Your task to perform on an android device: Go to CNN.com Image 0: 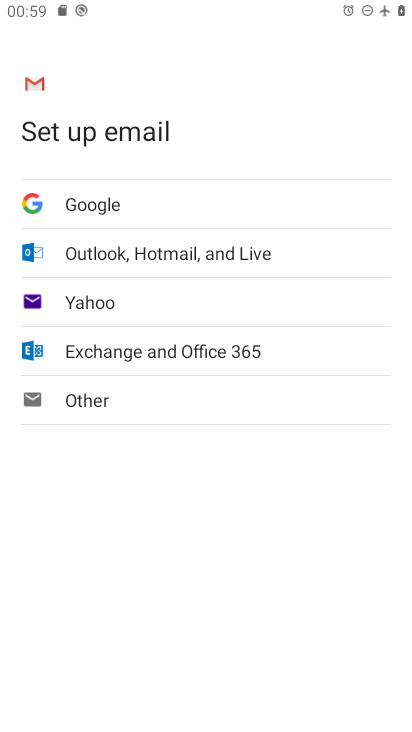
Step 0: press home button
Your task to perform on an android device: Go to CNN.com Image 1: 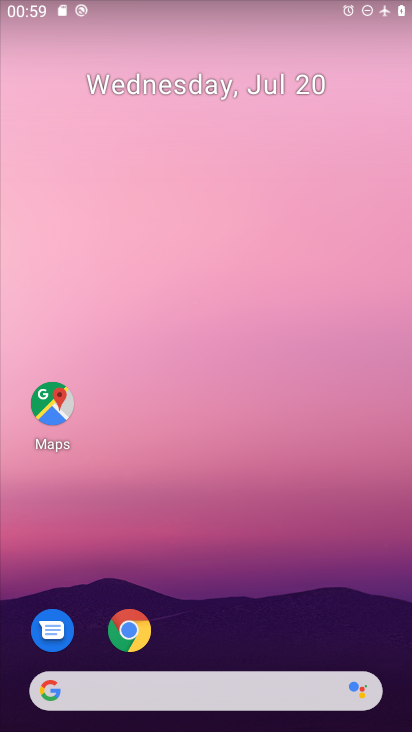
Step 1: click (144, 637)
Your task to perform on an android device: Go to CNN.com Image 2: 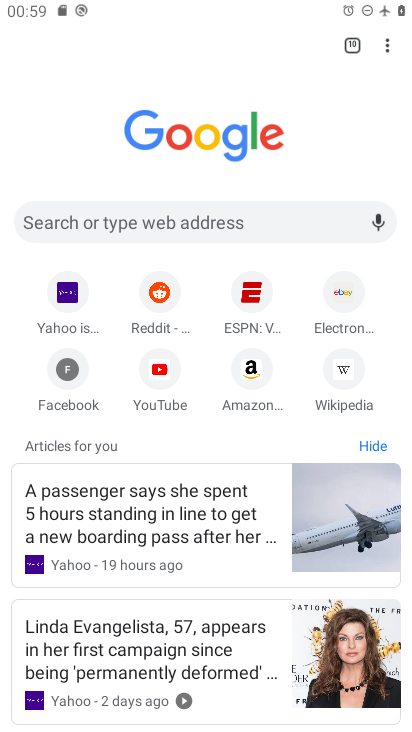
Step 2: click (176, 225)
Your task to perform on an android device: Go to CNN.com Image 3: 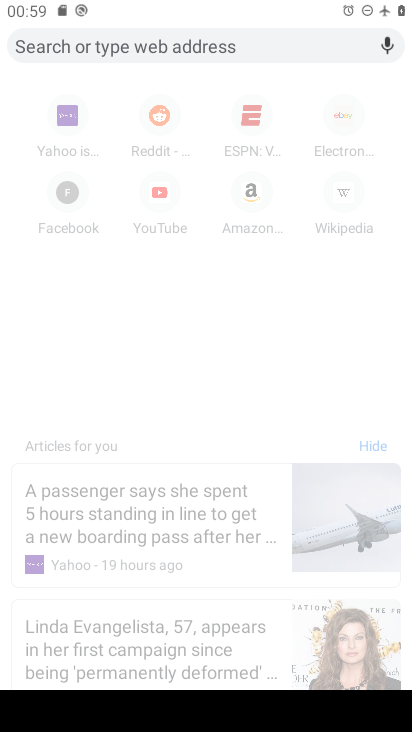
Step 3: type "CNN.com"
Your task to perform on an android device: Go to CNN.com Image 4: 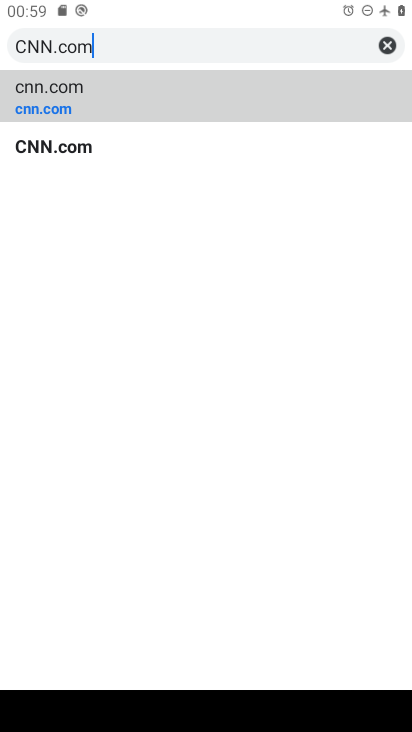
Step 4: type ""
Your task to perform on an android device: Go to CNN.com Image 5: 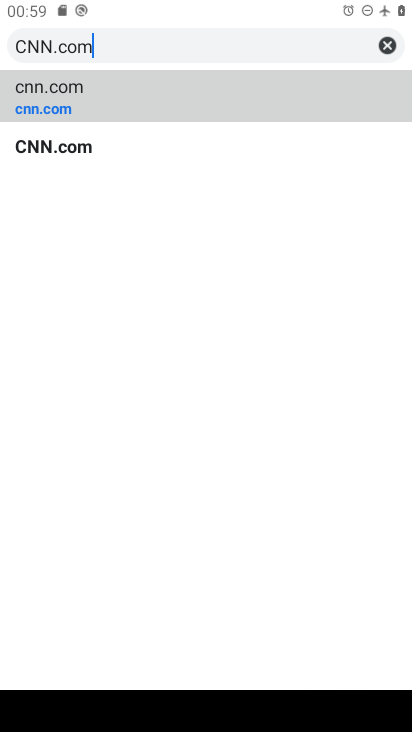
Step 5: click (136, 108)
Your task to perform on an android device: Go to CNN.com Image 6: 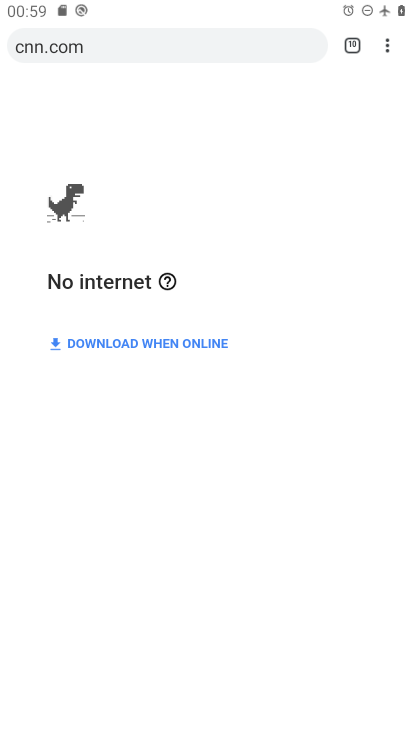
Step 6: task complete